Your task to perform on an android device: turn pop-ups off in chrome Image 0: 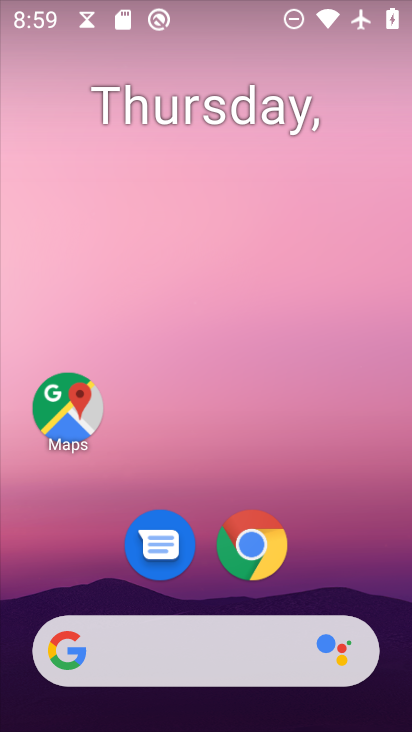
Step 0: click (256, 548)
Your task to perform on an android device: turn pop-ups off in chrome Image 1: 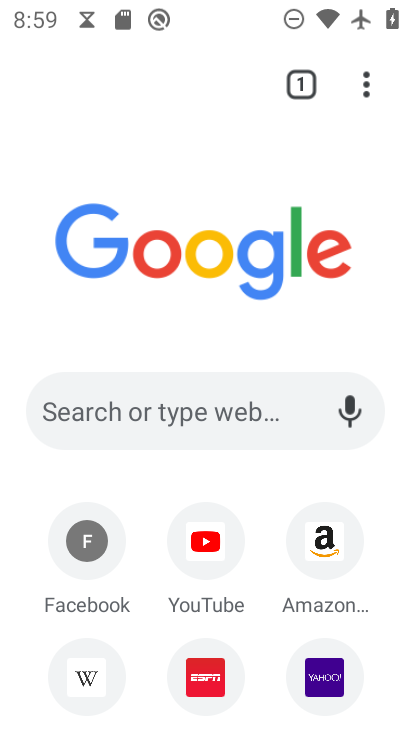
Step 1: click (367, 84)
Your task to perform on an android device: turn pop-ups off in chrome Image 2: 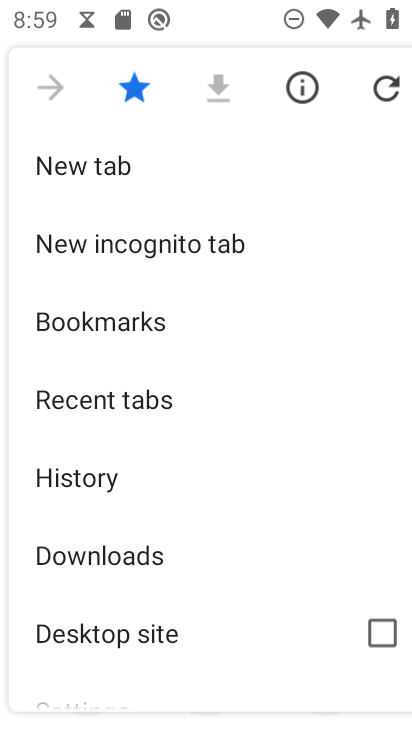
Step 2: drag from (186, 555) to (157, 399)
Your task to perform on an android device: turn pop-ups off in chrome Image 3: 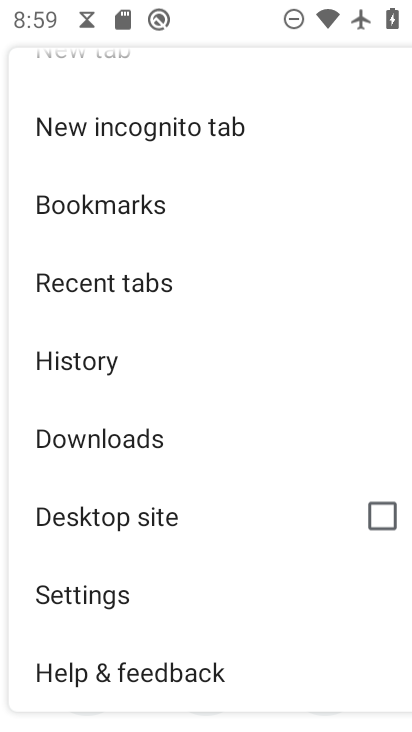
Step 3: drag from (123, 550) to (175, 466)
Your task to perform on an android device: turn pop-ups off in chrome Image 4: 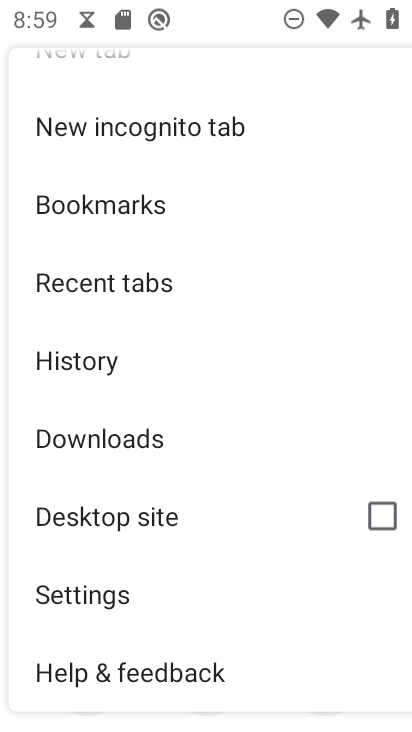
Step 4: click (108, 605)
Your task to perform on an android device: turn pop-ups off in chrome Image 5: 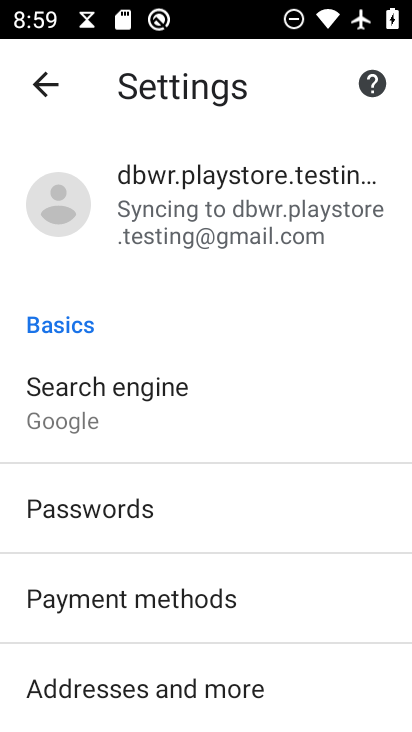
Step 5: drag from (191, 532) to (229, 415)
Your task to perform on an android device: turn pop-ups off in chrome Image 6: 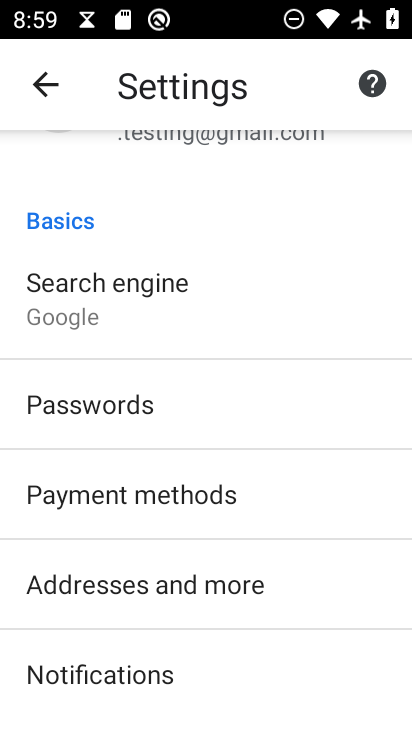
Step 6: drag from (169, 518) to (197, 442)
Your task to perform on an android device: turn pop-ups off in chrome Image 7: 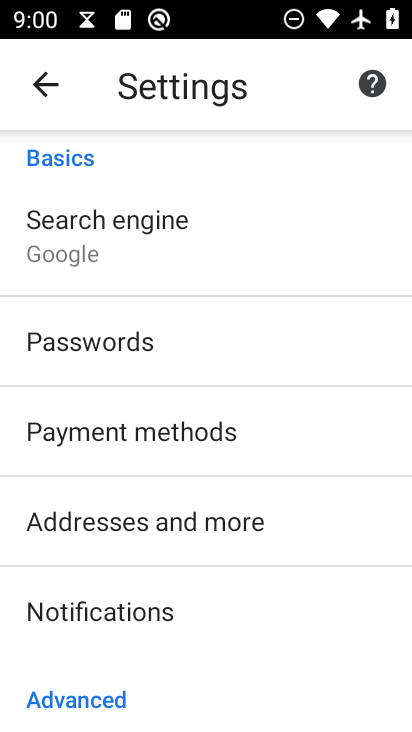
Step 7: drag from (138, 511) to (202, 437)
Your task to perform on an android device: turn pop-ups off in chrome Image 8: 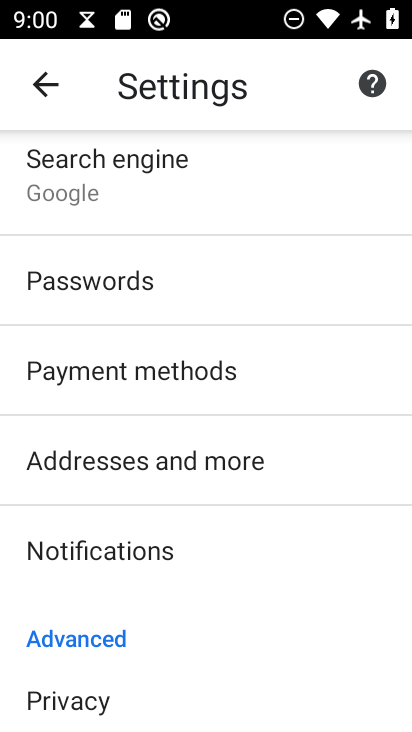
Step 8: drag from (137, 539) to (169, 455)
Your task to perform on an android device: turn pop-ups off in chrome Image 9: 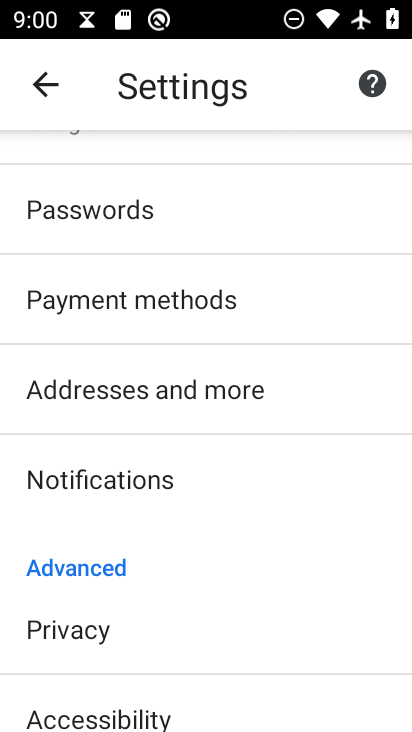
Step 9: drag from (142, 560) to (165, 469)
Your task to perform on an android device: turn pop-ups off in chrome Image 10: 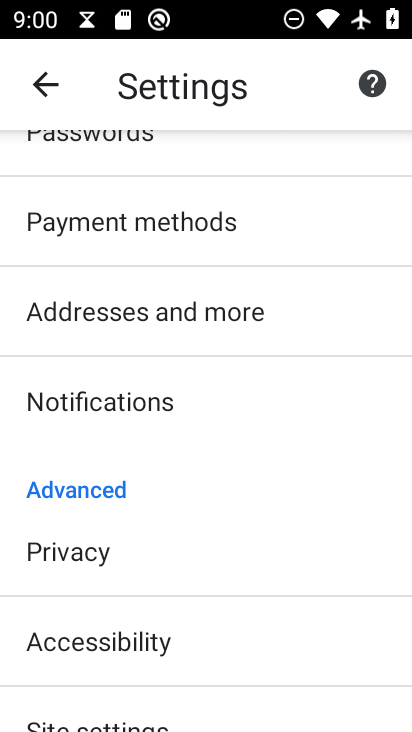
Step 10: drag from (122, 578) to (171, 505)
Your task to perform on an android device: turn pop-ups off in chrome Image 11: 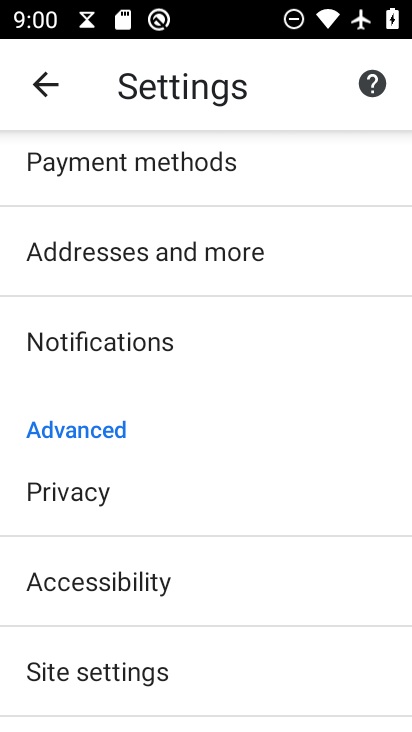
Step 11: drag from (97, 581) to (177, 494)
Your task to perform on an android device: turn pop-ups off in chrome Image 12: 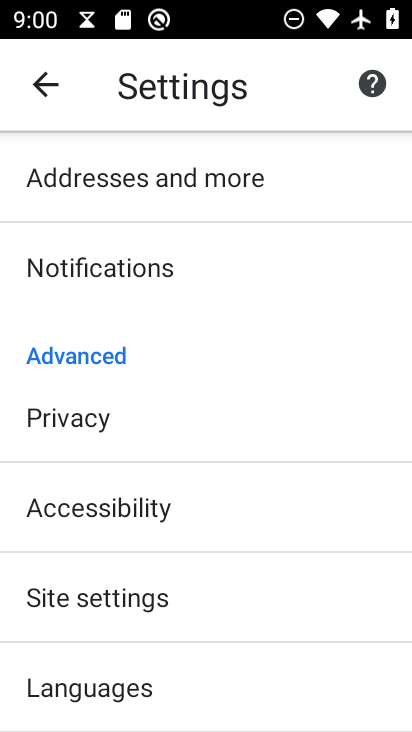
Step 12: drag from (110, 509) to (179, 415)
Your task to perform on an android device: turn pop-ups off in chrome Image 13: 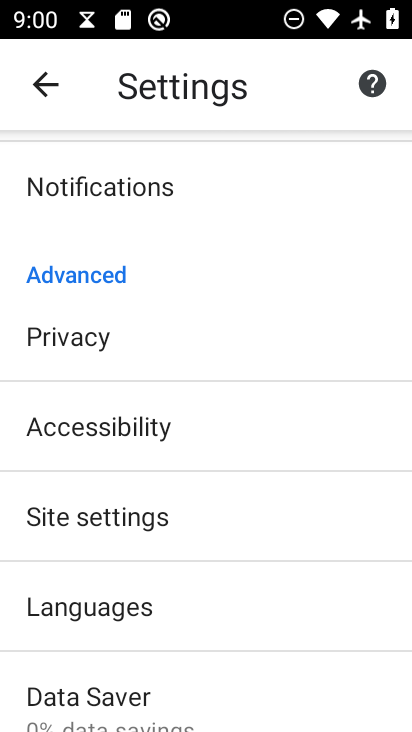
Step 13: click (117, 514)
Your task to perform on an android device: turn pop-ups off in chrome Image 14: 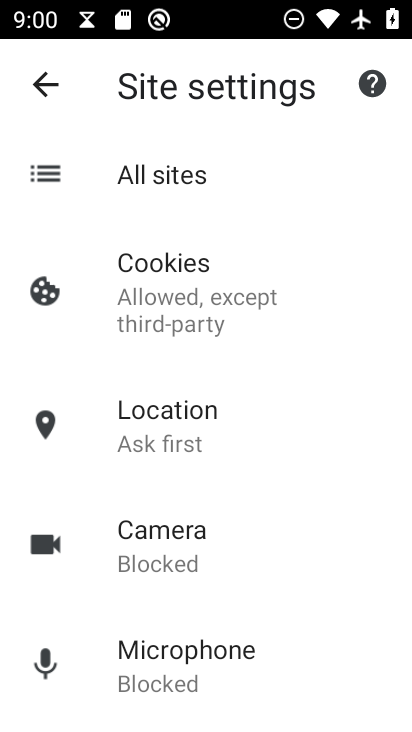
Step 14: drag from (191, 568) to (203, 487)
Your task to perform on an android device: turn pop-ups off in chrome Image 15: 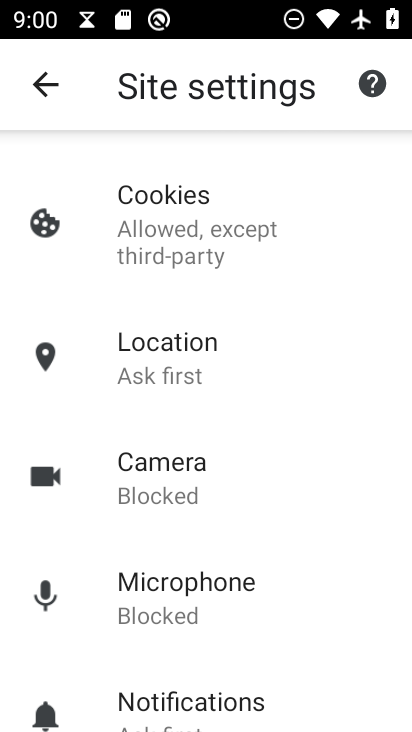
Step 15: drag from (164, 551) to (229, 458)
Your task to perform on an android device: turn pop-ups off in chrome Image 16: 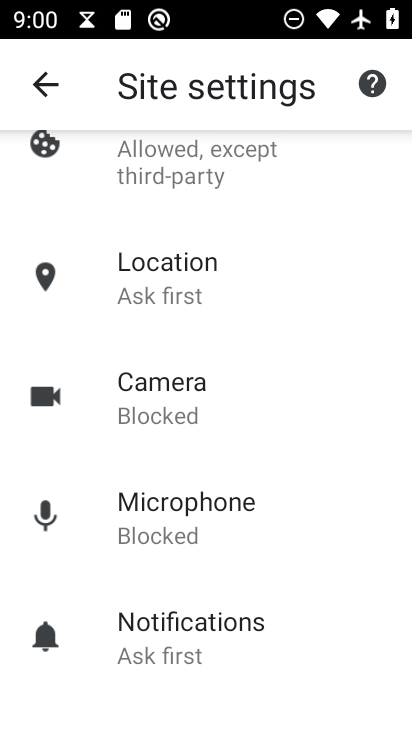
Step 16: drag from (161, 571) to (242, 457)
Your task to perform on an android device: turn pop-ups off in chrome Image 17: 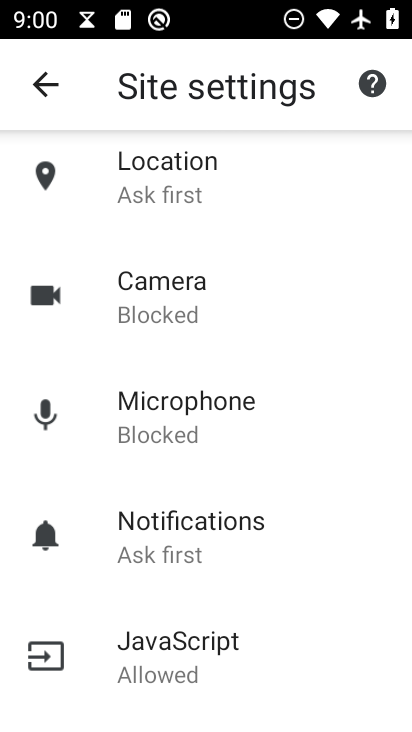
Step 17: drag from (149, 481) to (239, 387)
Your task to perform on an android device: turn pop-ups off in chrome Image 18: 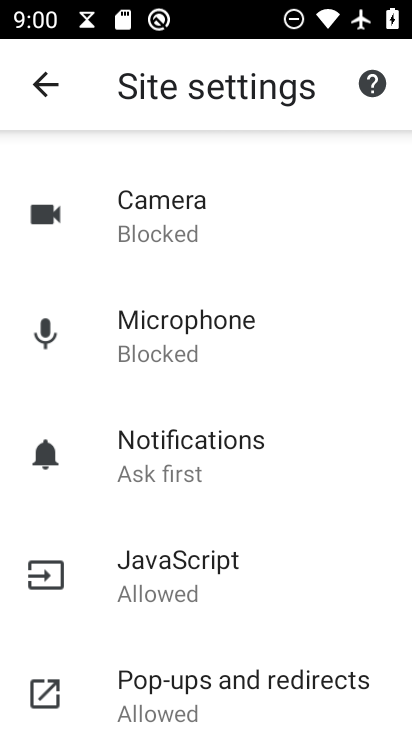
Step 18: drag from (145, 514) to (218, 415)
Your task to perform on an android device: turn pop-ups off in chrome Image 19: 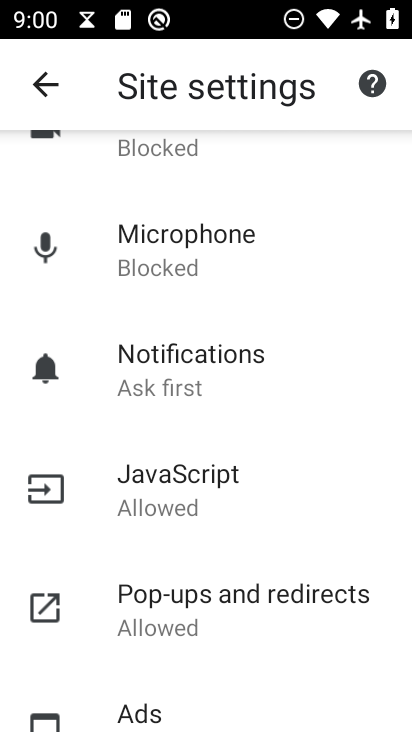
Step 19: drag from (162, 550) to (248, 450)
Your task to perform on an android device: turn pop-ups off in chrome Image 20: 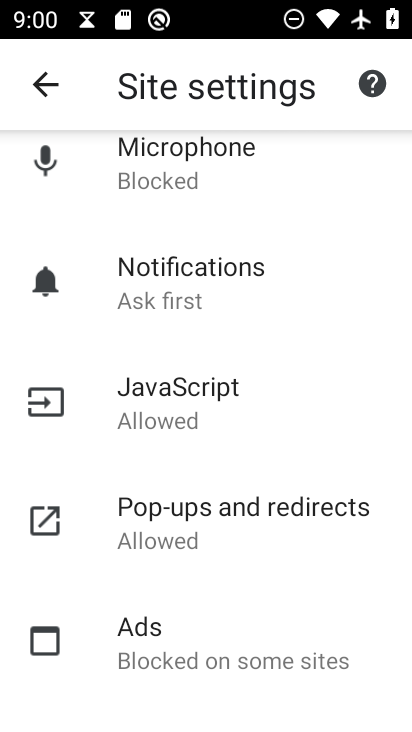
Step 20: click (240, 512)
Your task to perform on an android device: turn pop-ups off in chrome Image 21: 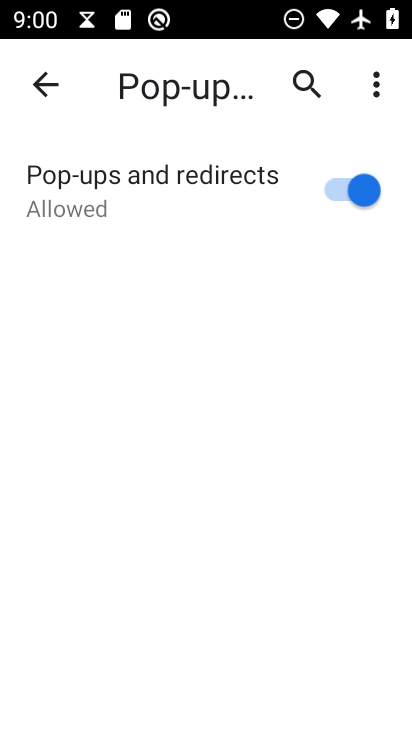
Step 21: click (333, 190)
Your task to perform on an android device: turn pop-ups off in chrome Image 22: 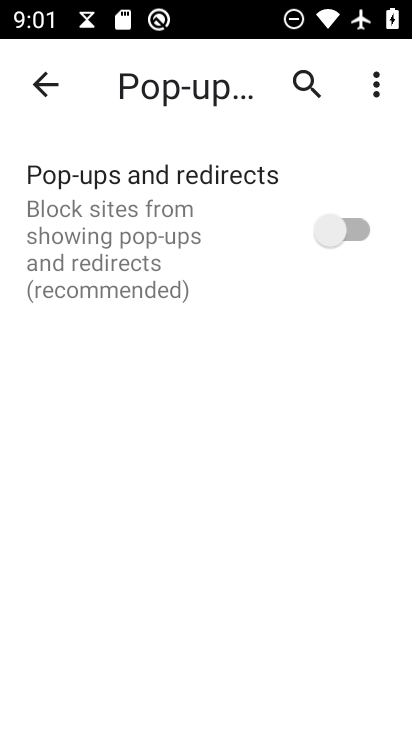
Step 22: task complete